Your task to perform on an android device: find photos in the google photos app Image 0: 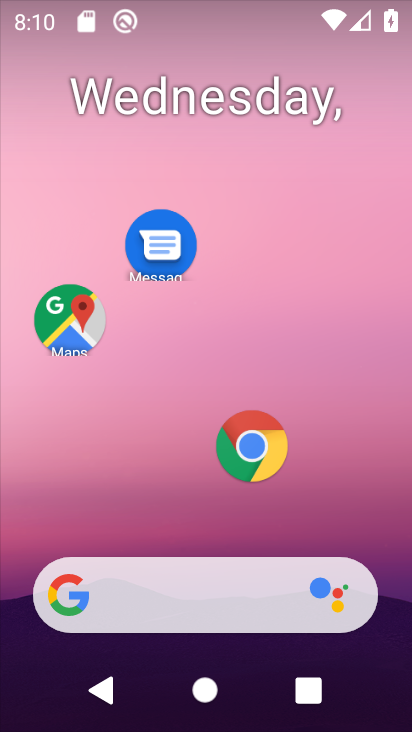
Step 0: drag from (189, 524) to (224, 92)
Your task to perform on an android device: find photos in the google photos app Image 1: 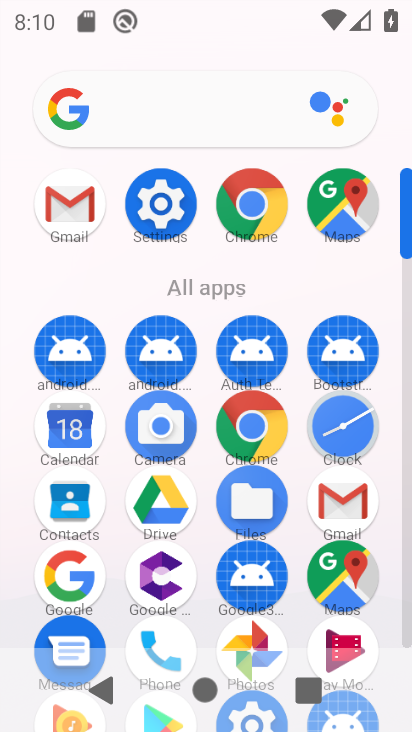
Step 1: click (252, 635)
Your task to perform on an android device: find photos in the google photos app Image 2: 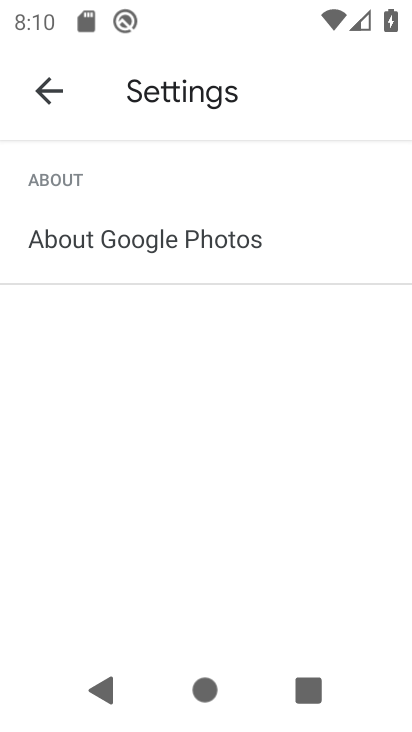
Step 2: click (45, 99)
Your task to perform on an android device: find photos in the google photos app Image 3: 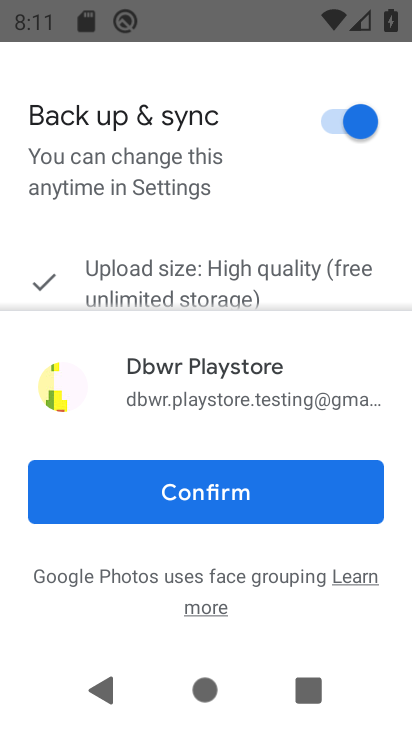
Step 3: click (197, 490)
Your task to perform on an android device: find photos in the google photos app Image 4: 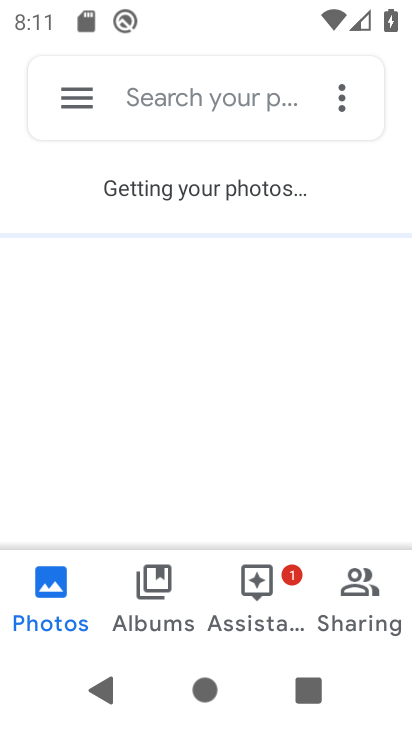
Step 4: task complete